Your task to perform on an android device: Check the weather Image 0: 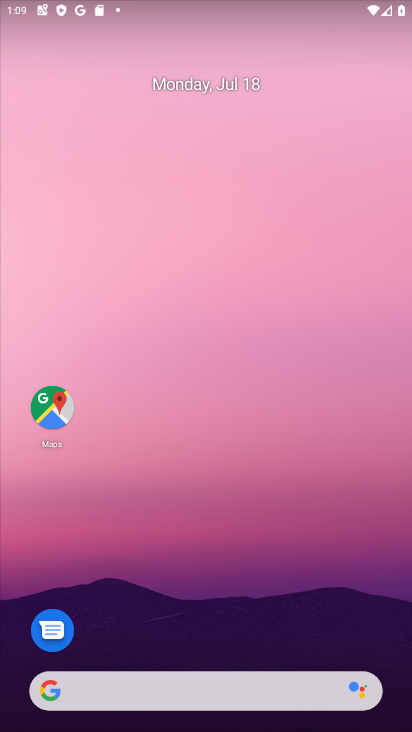
Step 0: drag from (253, 679) to (398, 626)
Your task to perform on an android device: Check the weather Image 1: 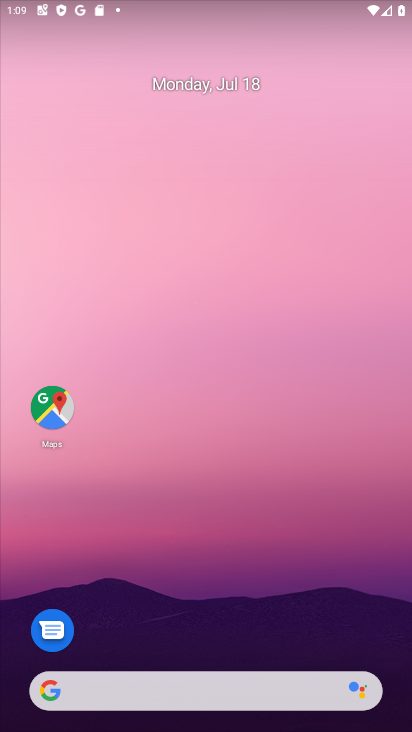
Step 1: drag from (197, 663) to (198, 109)
Your task to perform on an android device: Check the weather Image 2: 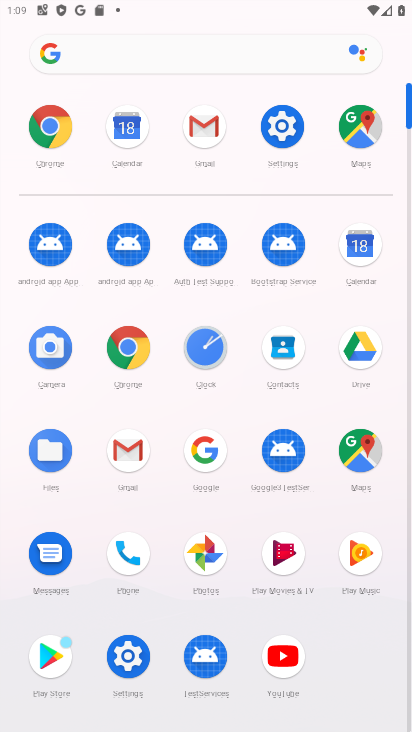
Step 2: click (128, 349)
Your task to perform on an android device: Check the weather Image 3: 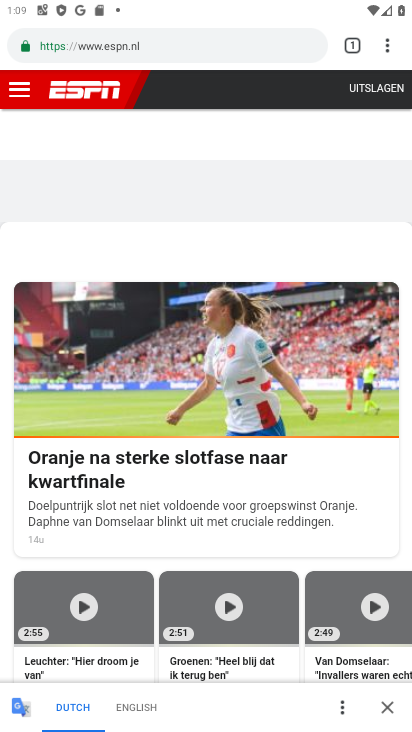
Step 3: click (176, 54)
Your task to perform on an android device: Check the weather Image 4: 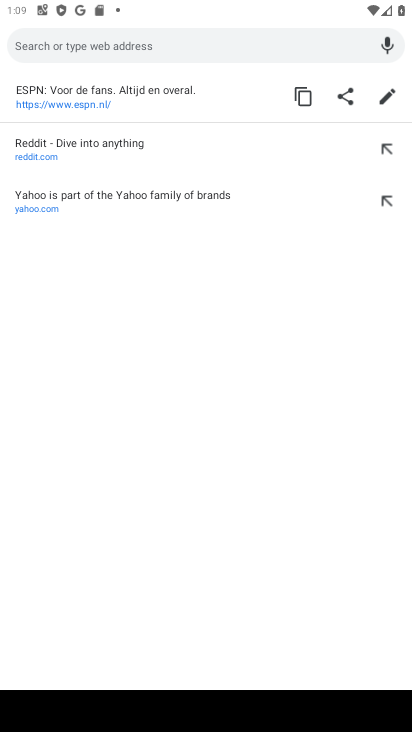
Step 4: type "check the weather"
Your task to perform on an android device: Check the weather Image 5: 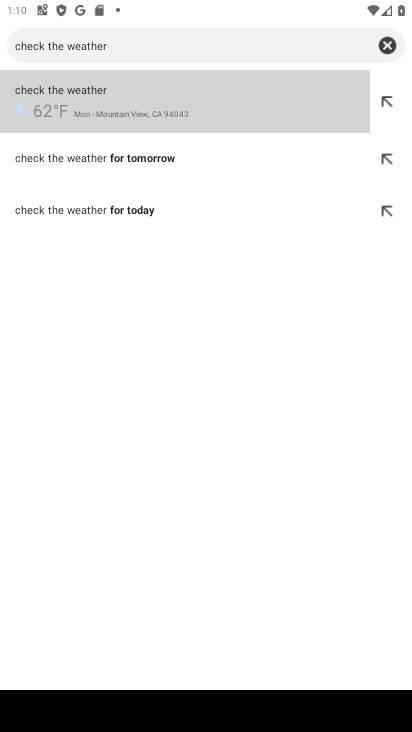
Step 5: click (142, 93)
Your task to perform on an android device: Check the weather Image 6: 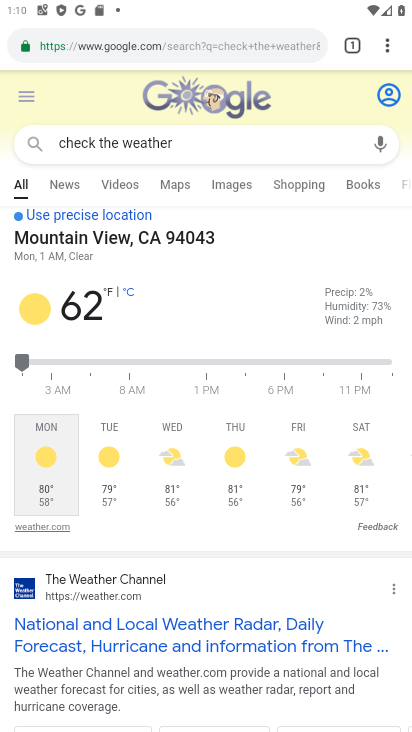
Step 6: task complete